Your task to perform on an android device: check storage Image 0: 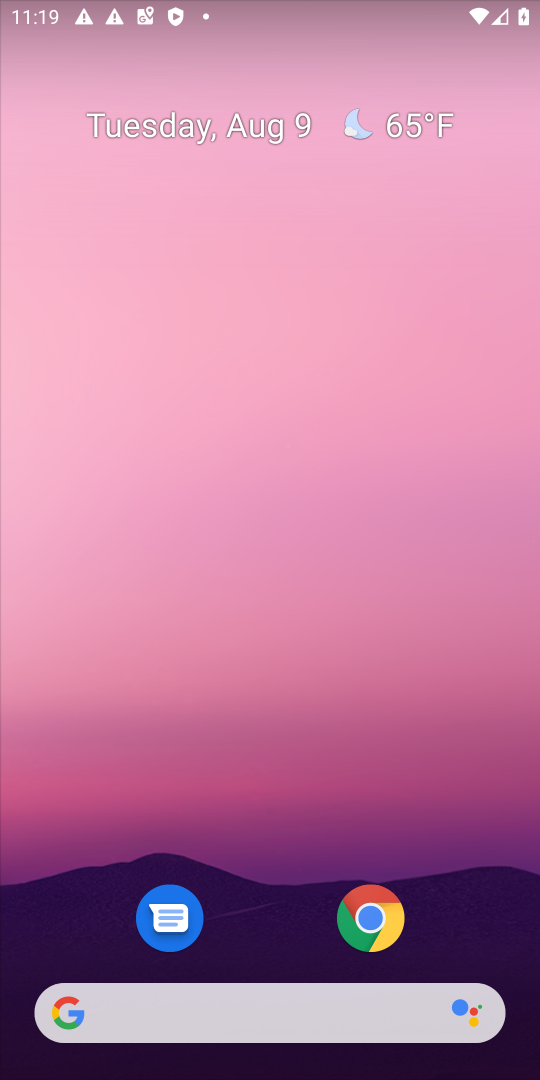
Step 0: drag from (282, 834) to (235, 140)
Your task to perform on an android device: check storage Image 1: 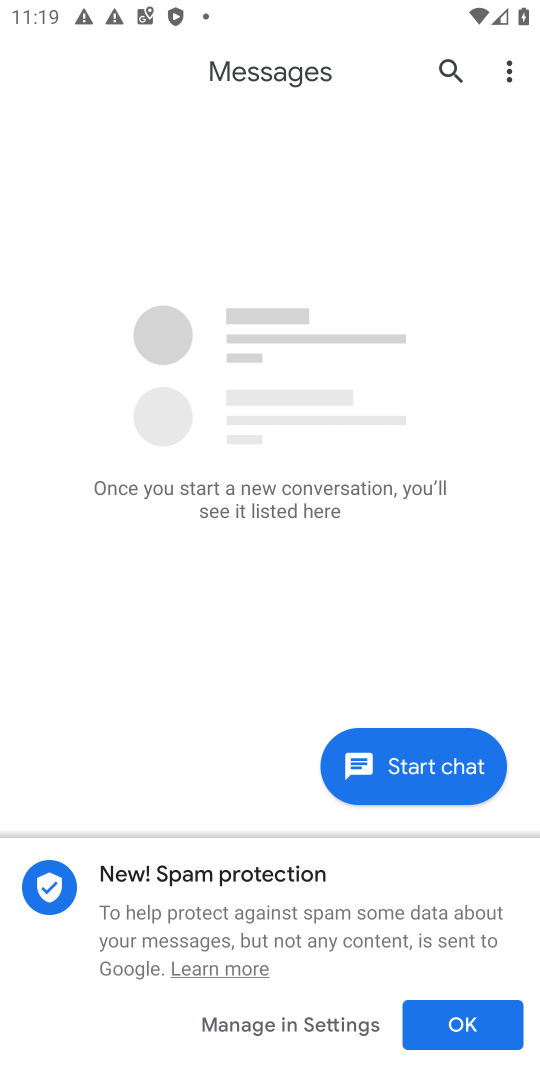
Step 1: press home button
Your task to perform on an android device: check storage Image 2: 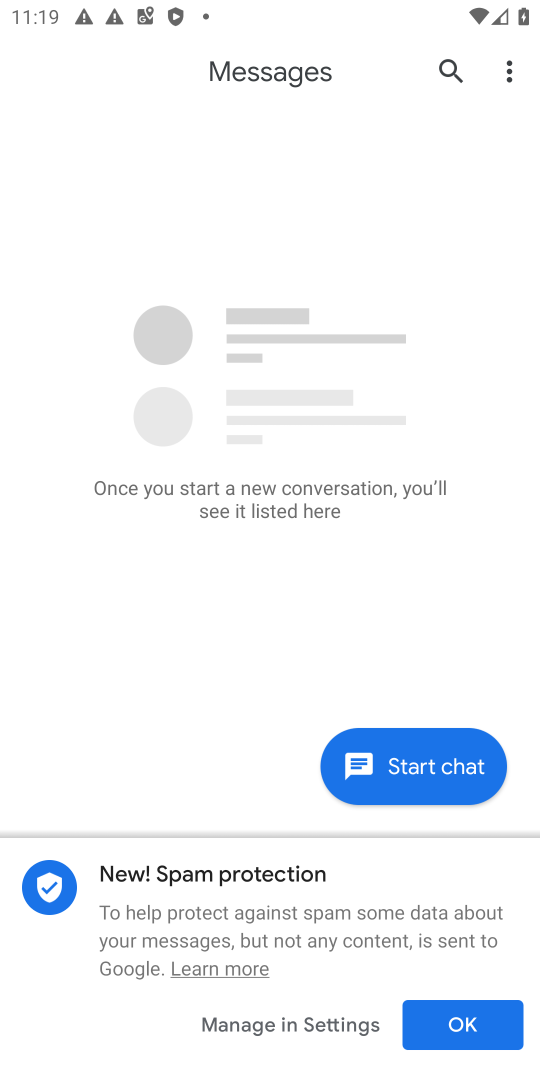
Step 2: press home button
Your task to perform on an android device: check storage Image 3: 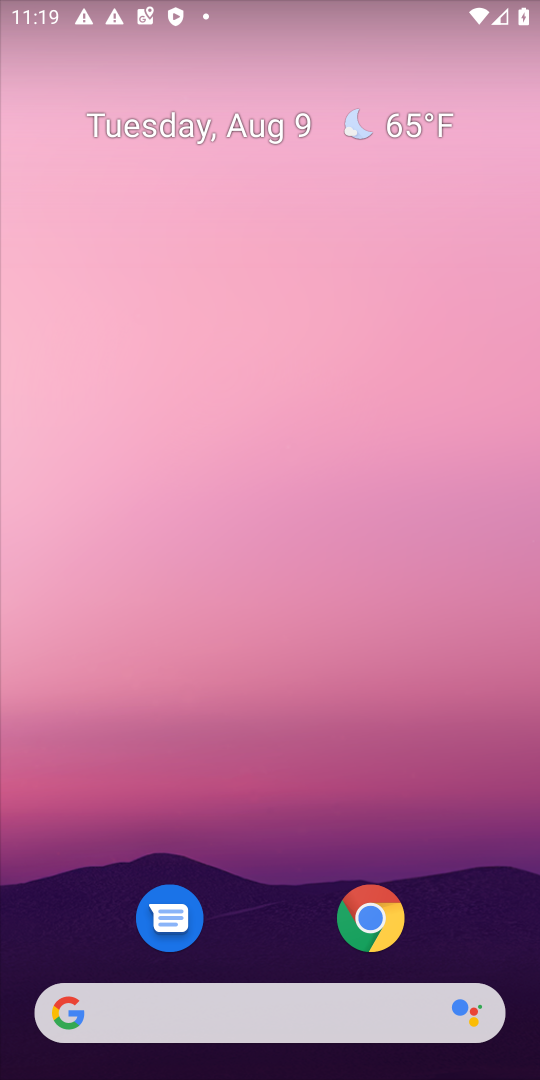
Step 3: drag from (285, 993) to (239, 227)
Your task to perform on an android device: check storage Image 4: 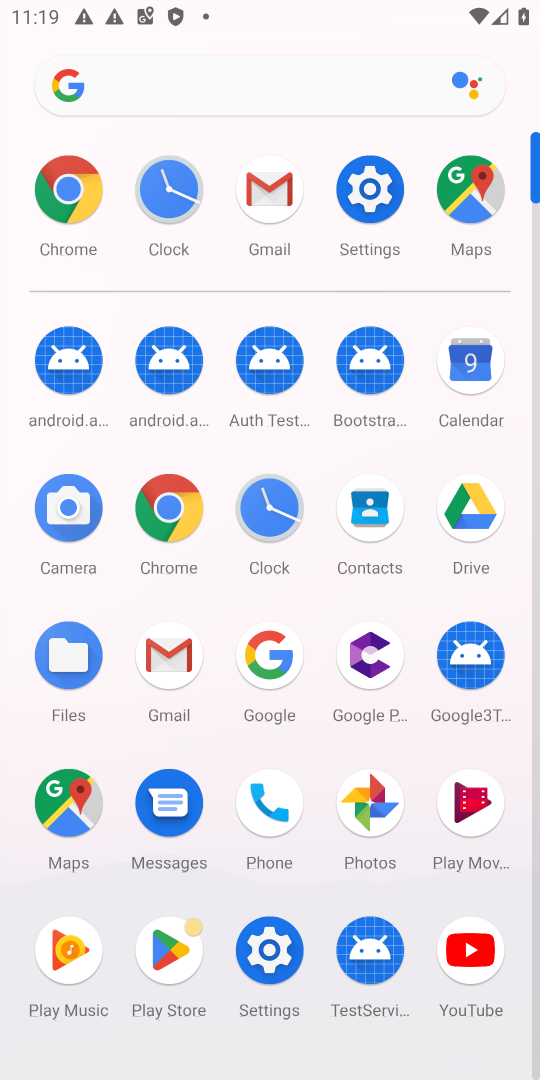
Step 4: click (268, 939)
Your task to perform on an android device: check storage Image 5: 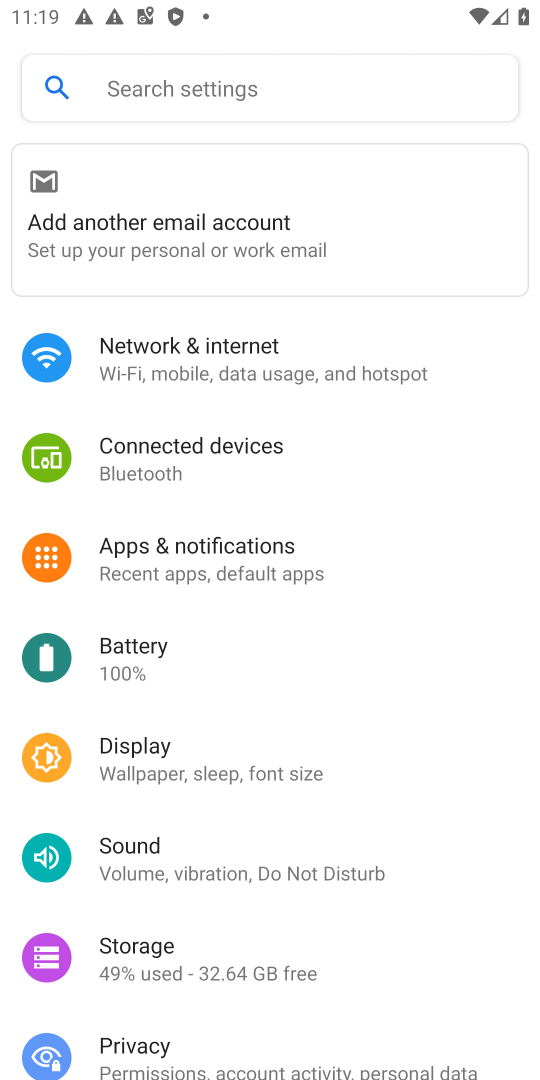
Step 5: drag from (365, 912) to (414, 579)
Your task to perform on an android device: check storage Image 6: 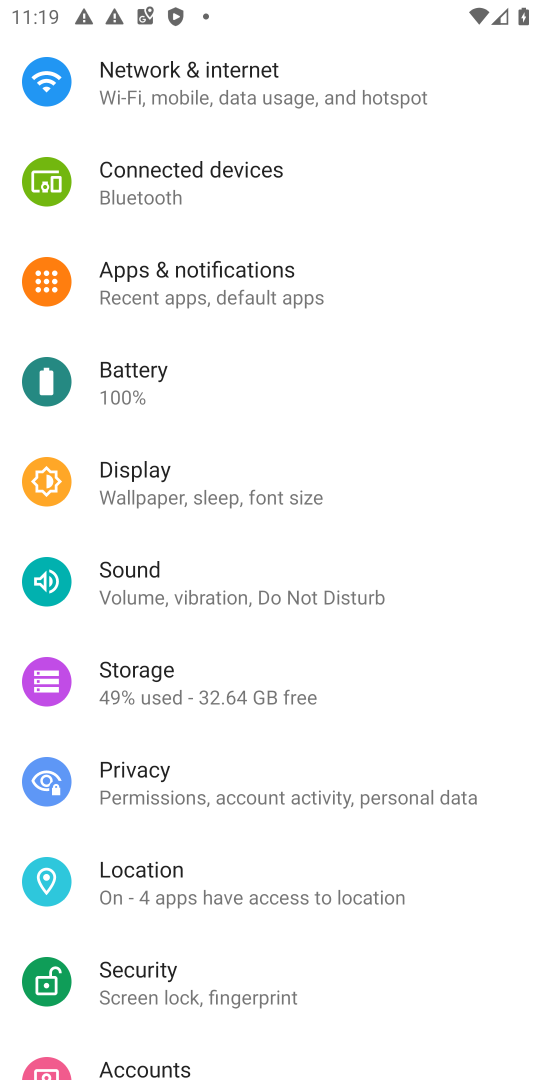
Step 6: click (149, 688)
Your task to perform on an android device: check storage Image 7: 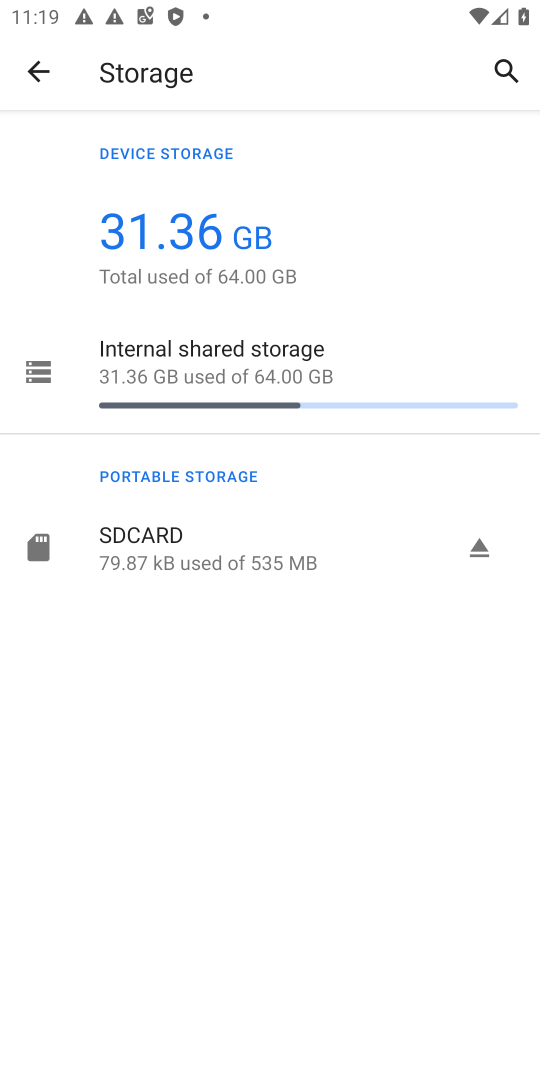
Step 7: task complete